Your task to perform on an android device: open app "DuckDuckGo Privacy Browser" (install if not already installed) and go to login screen Image 0: 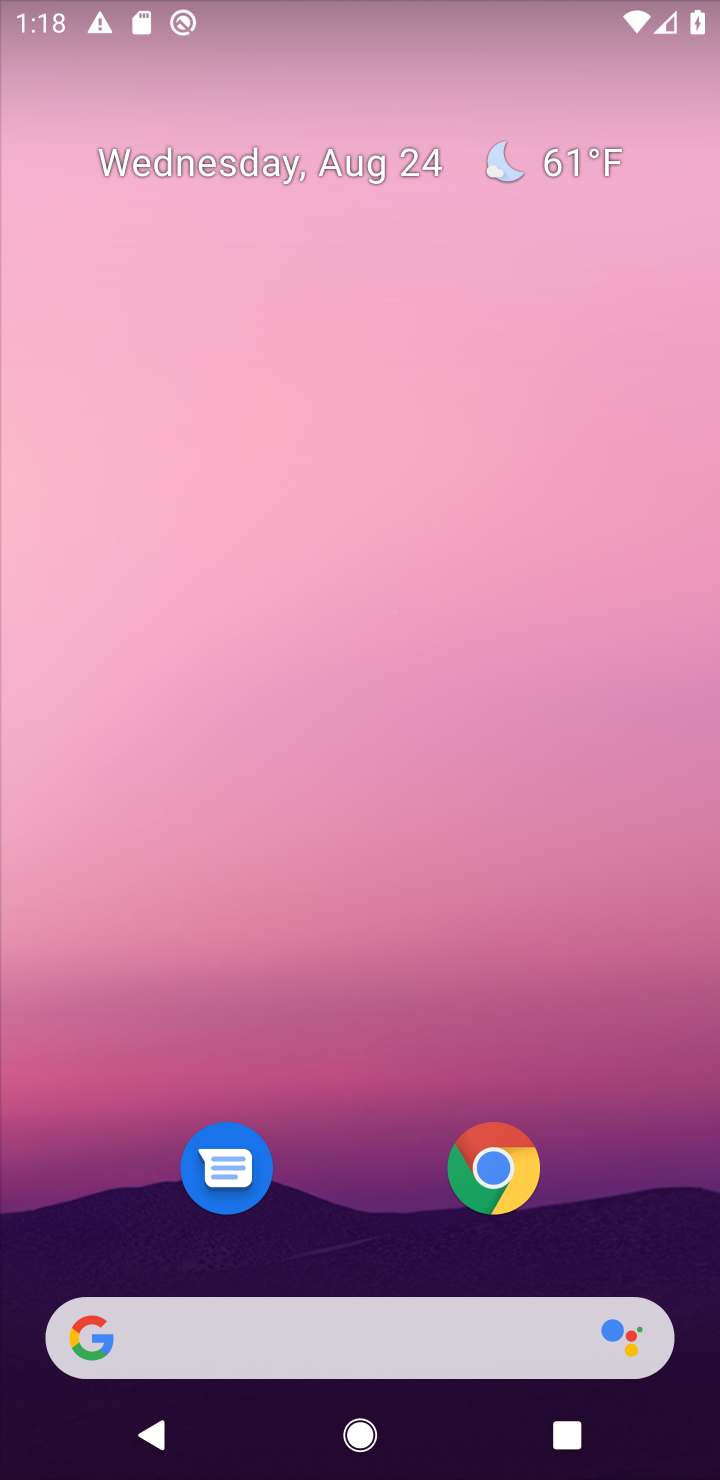
Step 0: drag from (689, 1256) to (558, 269)
Your task to perform on an android device: open app "DuckDuckGo Privacy Browser" (install if not already installed) and go to login screen Image 1: 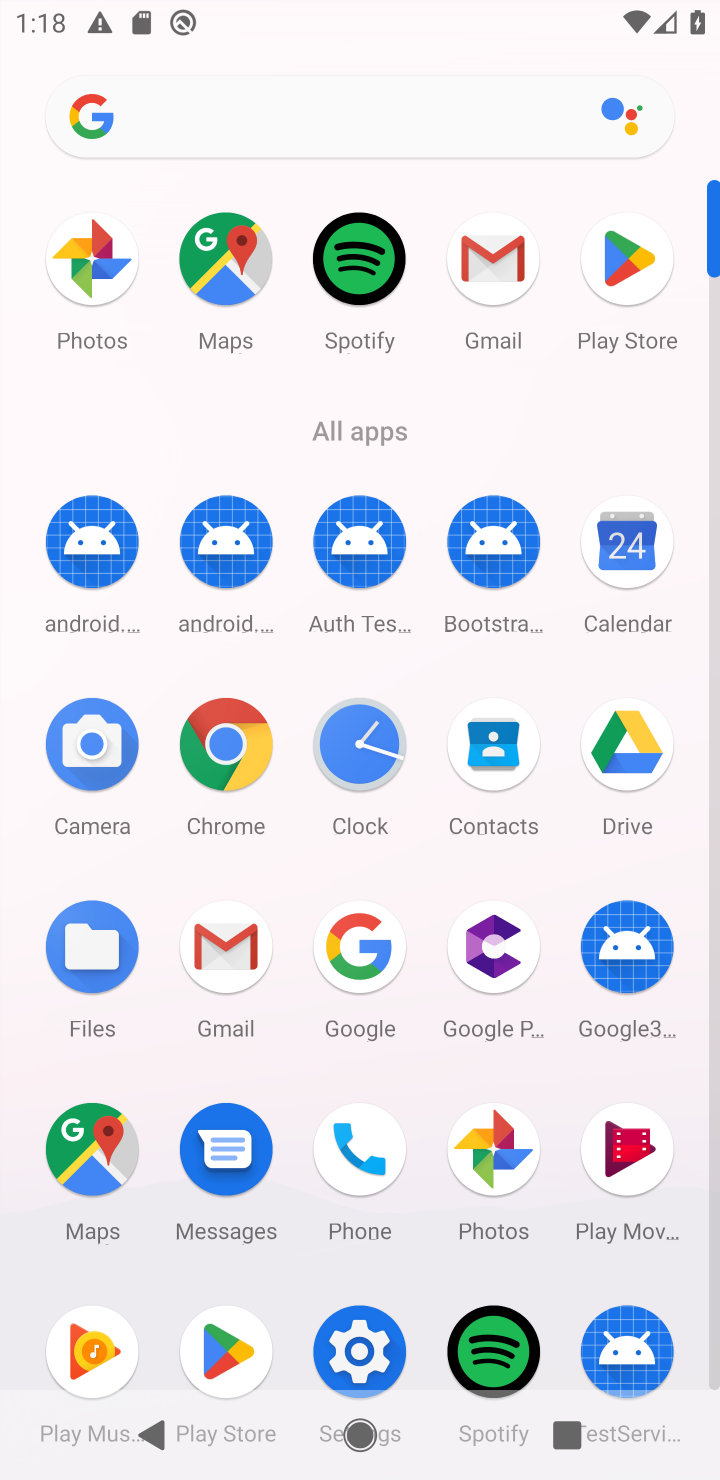
Step 1: click (711, 1324)
Your task to perform on an android device: open app "DuckDuckGo Privacy Browser" (install if not already installed) and go to login screen Image 2: 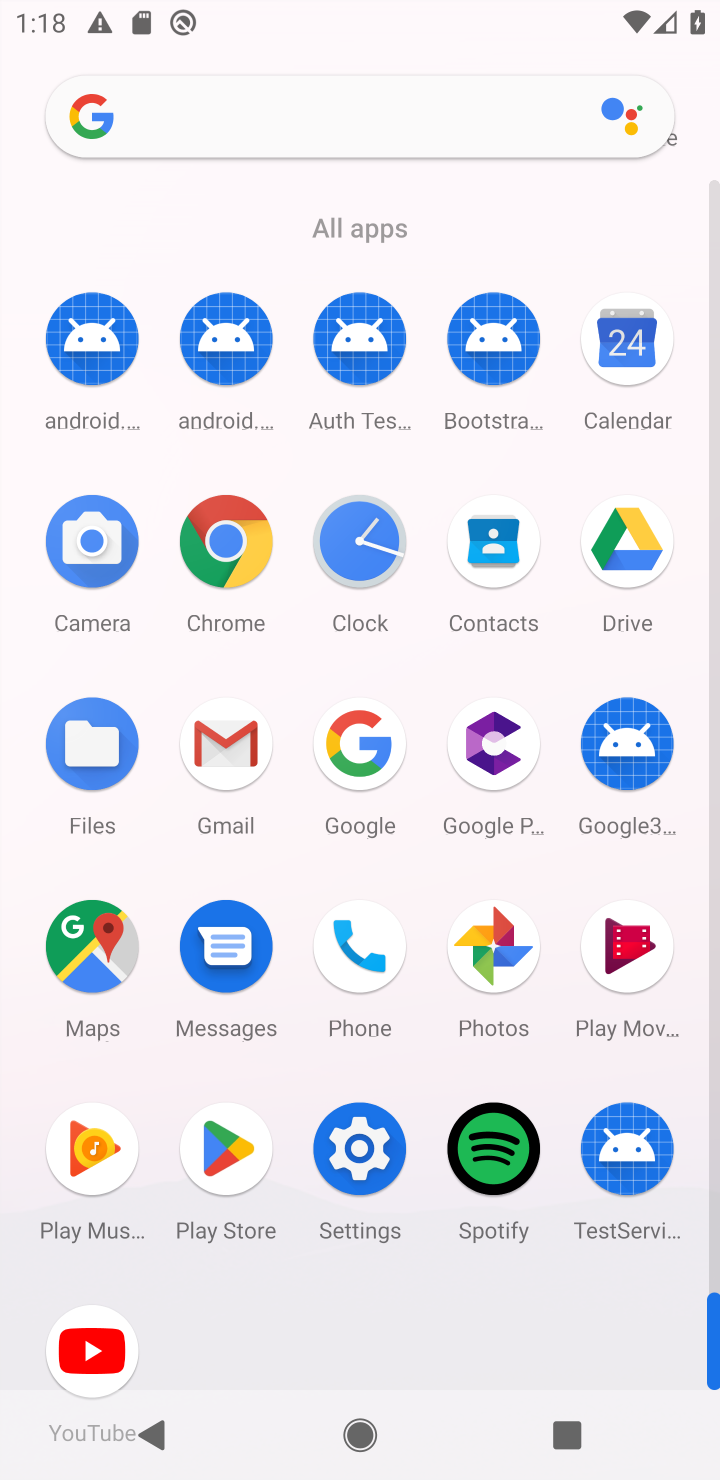
Step 2: click (236, 1141)
Your task to perform on an android device: open app "DuckDuckGo Privacy Browser" (install if not already installed) and go to login screen Image 3: 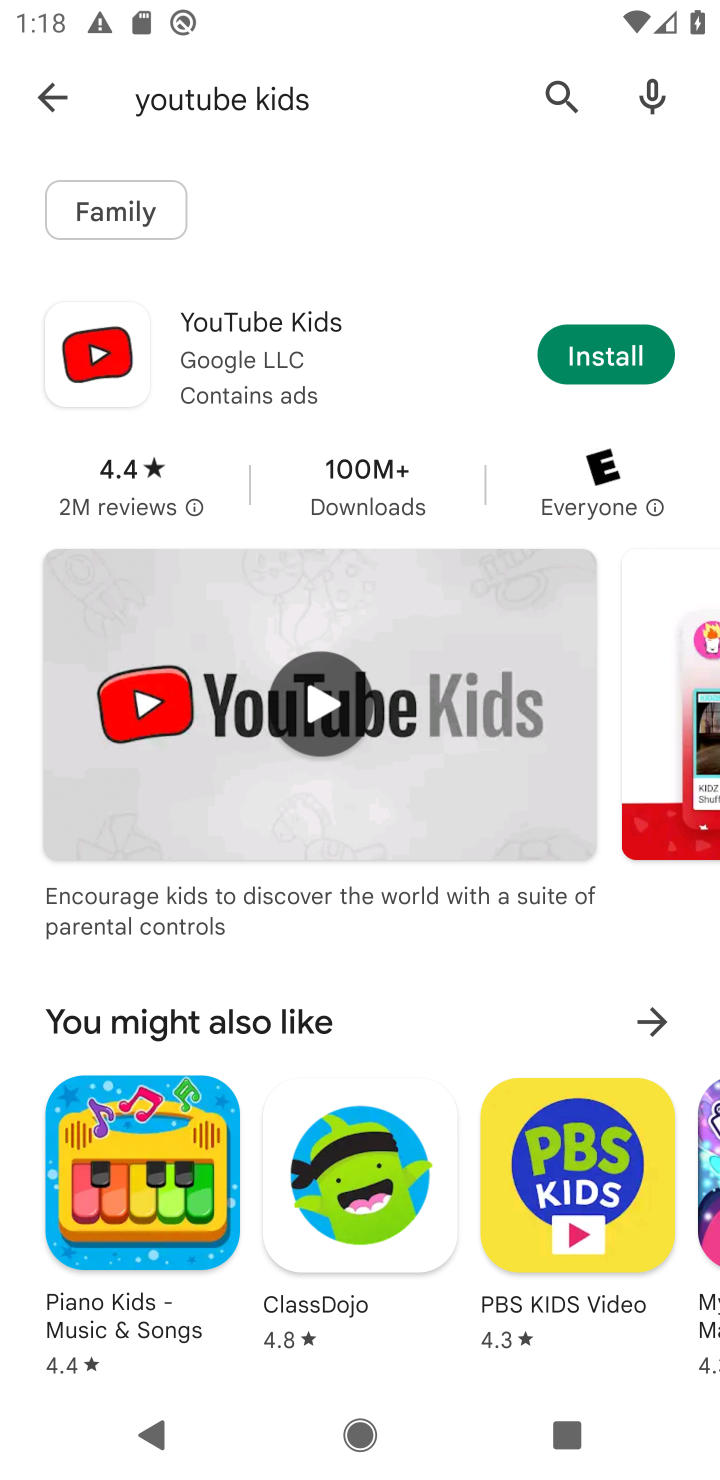
Step 3: click (553, 78)
Your task to perform on an android device: open app "DuckDuckGo Privacy Browser" (install if not already installed) and go to login screen Image 4: 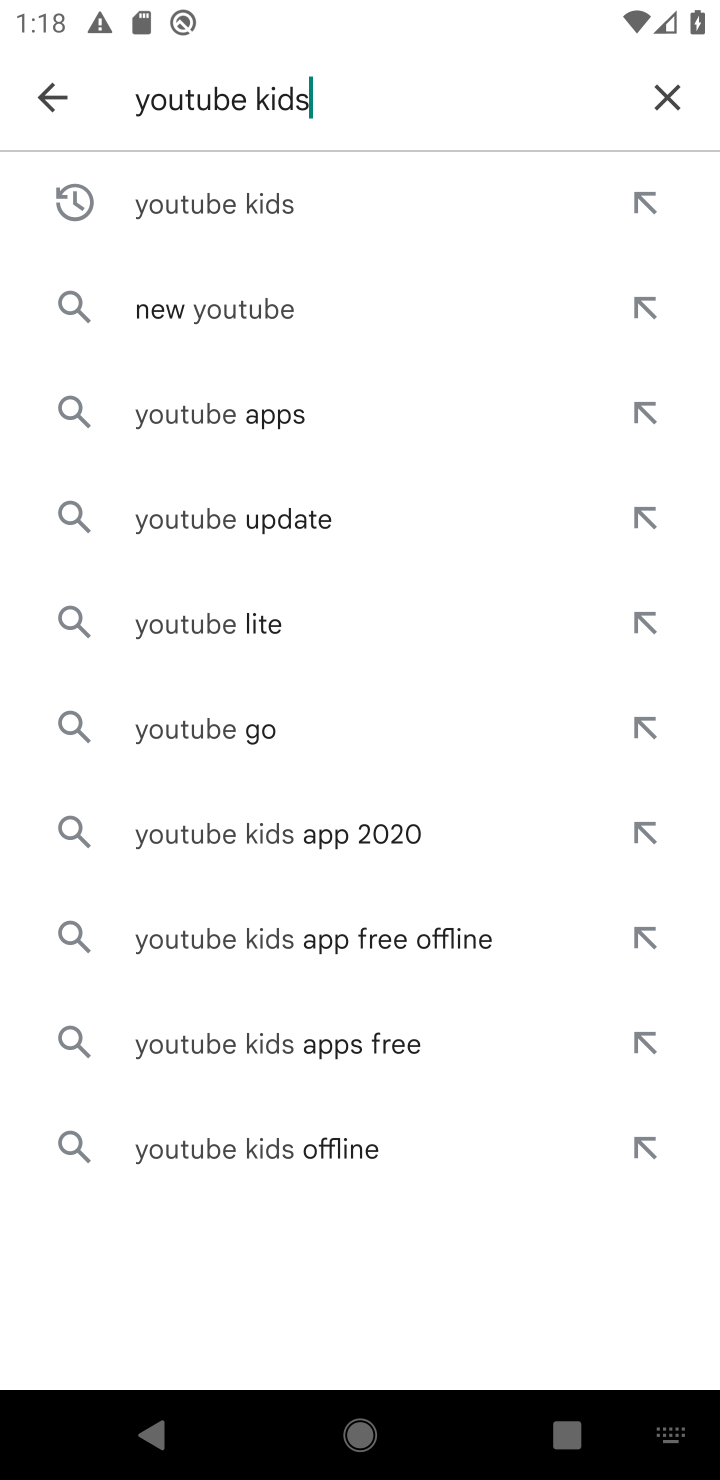
Step 4: click (670, 91)
Your task to perform on an android device: open app "DuckDuckGo Privacy Browser" (install if not already installed) and go to login screen Image 5: 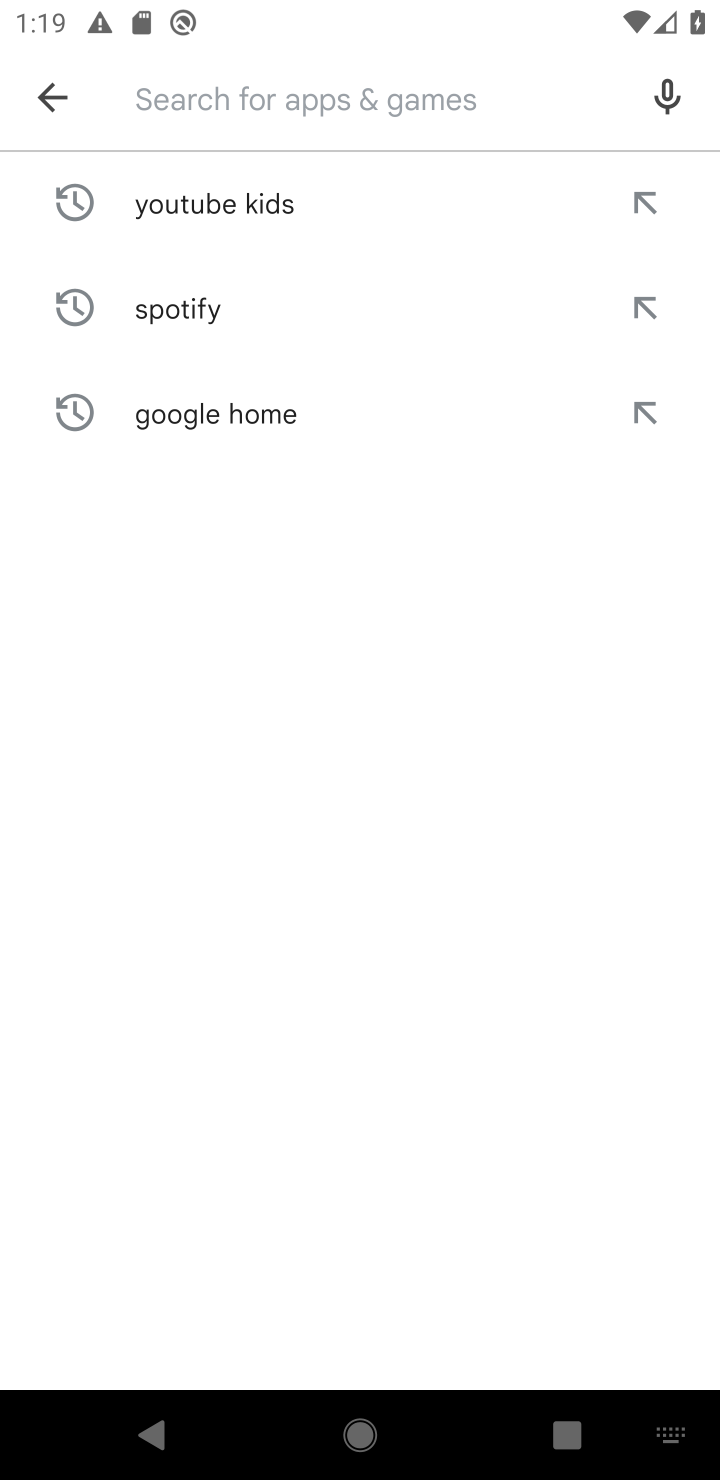
Step 5: type "DuckDuckGo Privacy Browser"
Your task to perform on an android device: open app "DuckDuckGo Privacy Browser" (install if not already installed) and go to login screen Image 6: 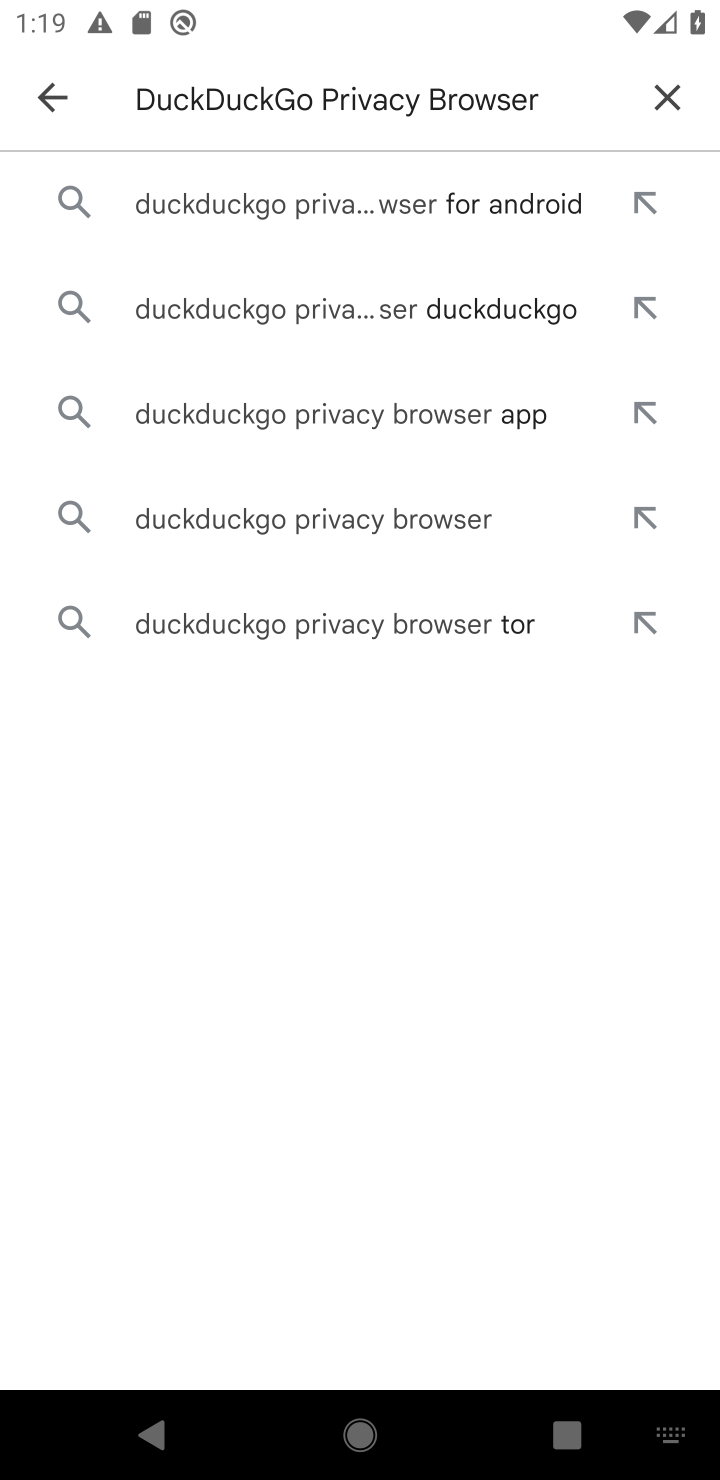
Step 6: click (295, 175)
Your task to perform on an android device: open app "DuckDuckGo Privacy Browser" (install if not already installed) and go to login screen Image 7: 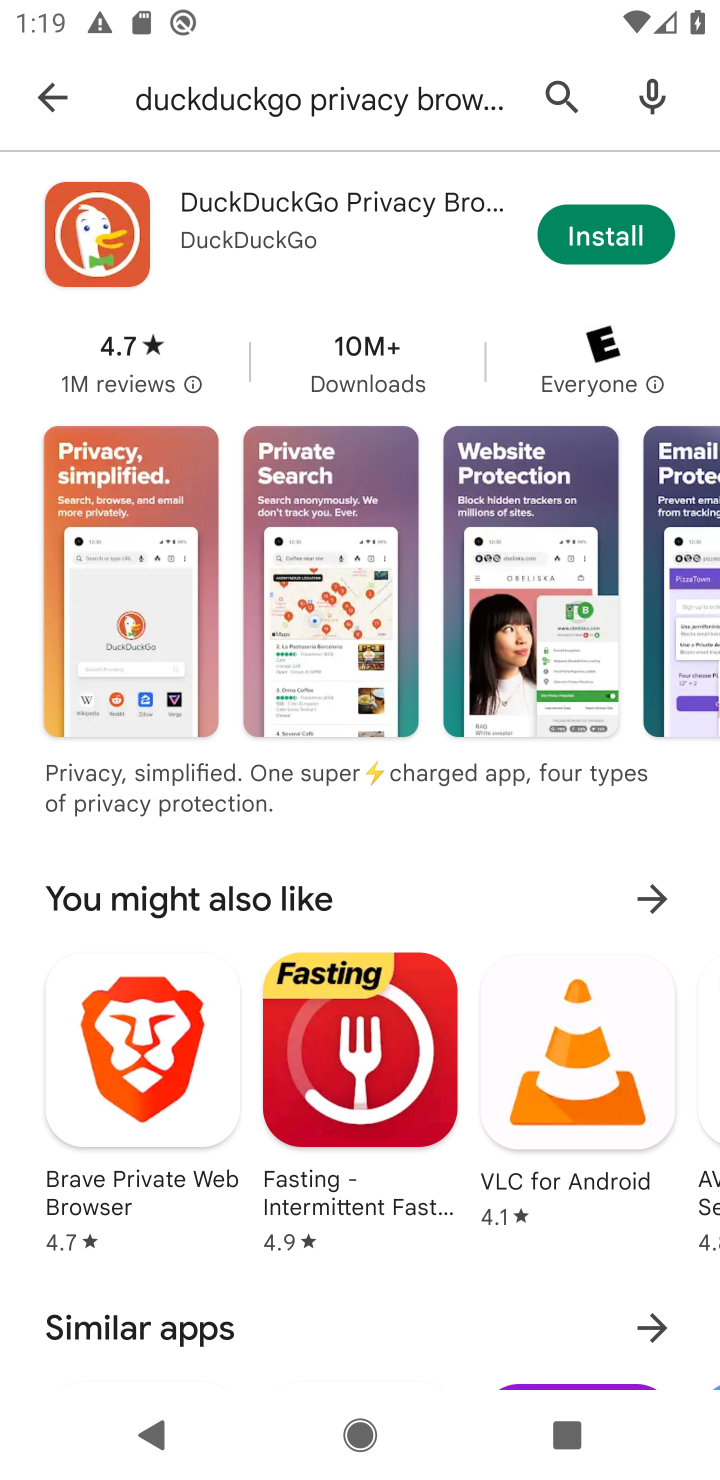
Step 7: click (241, 211)
Your task to perform on an android device: open app "DuckDuckGo Privacy Browser" (install if not already installed) and go to login screen Image 8: 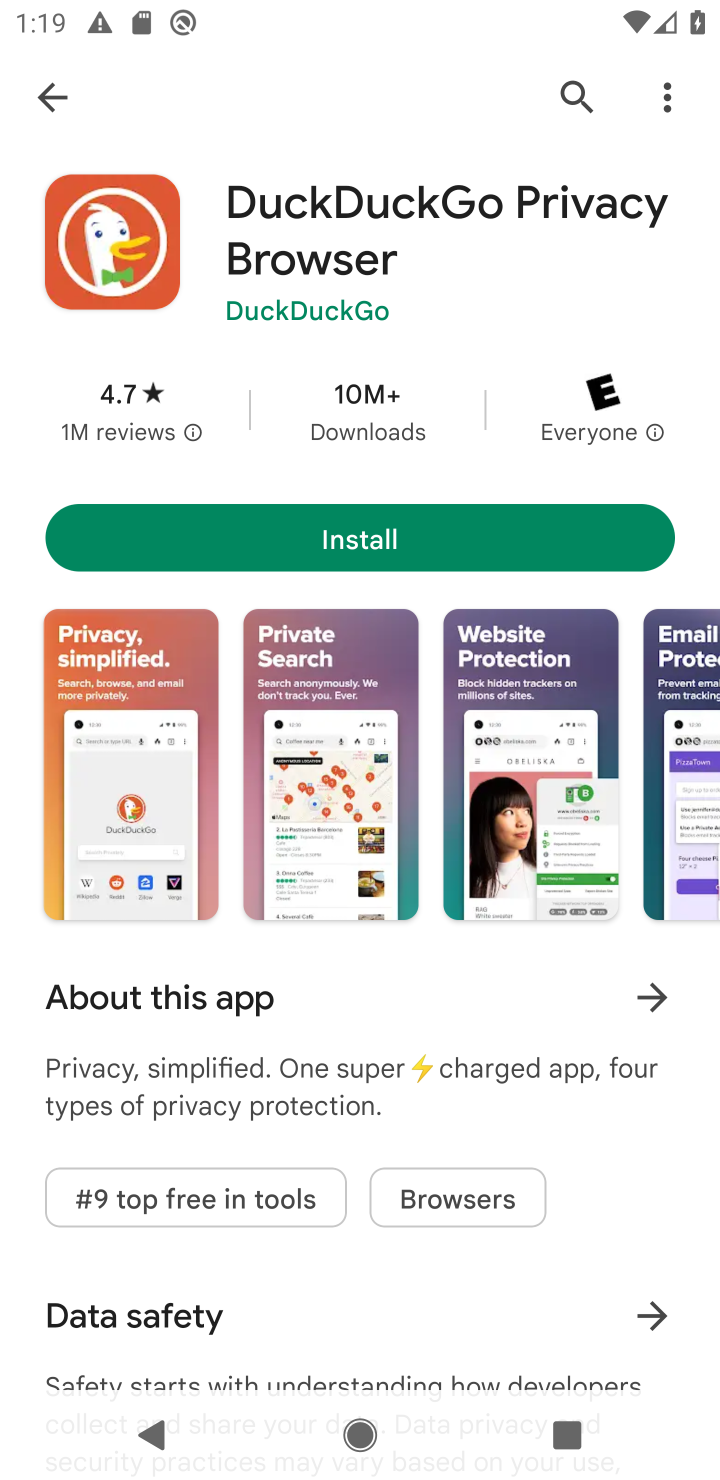
Step 8: click (366, 533)
Your task to perform on an android device: open app "DuckDuckGo Privacy Browser" (install if not already installed) and go to login screen Image 9: 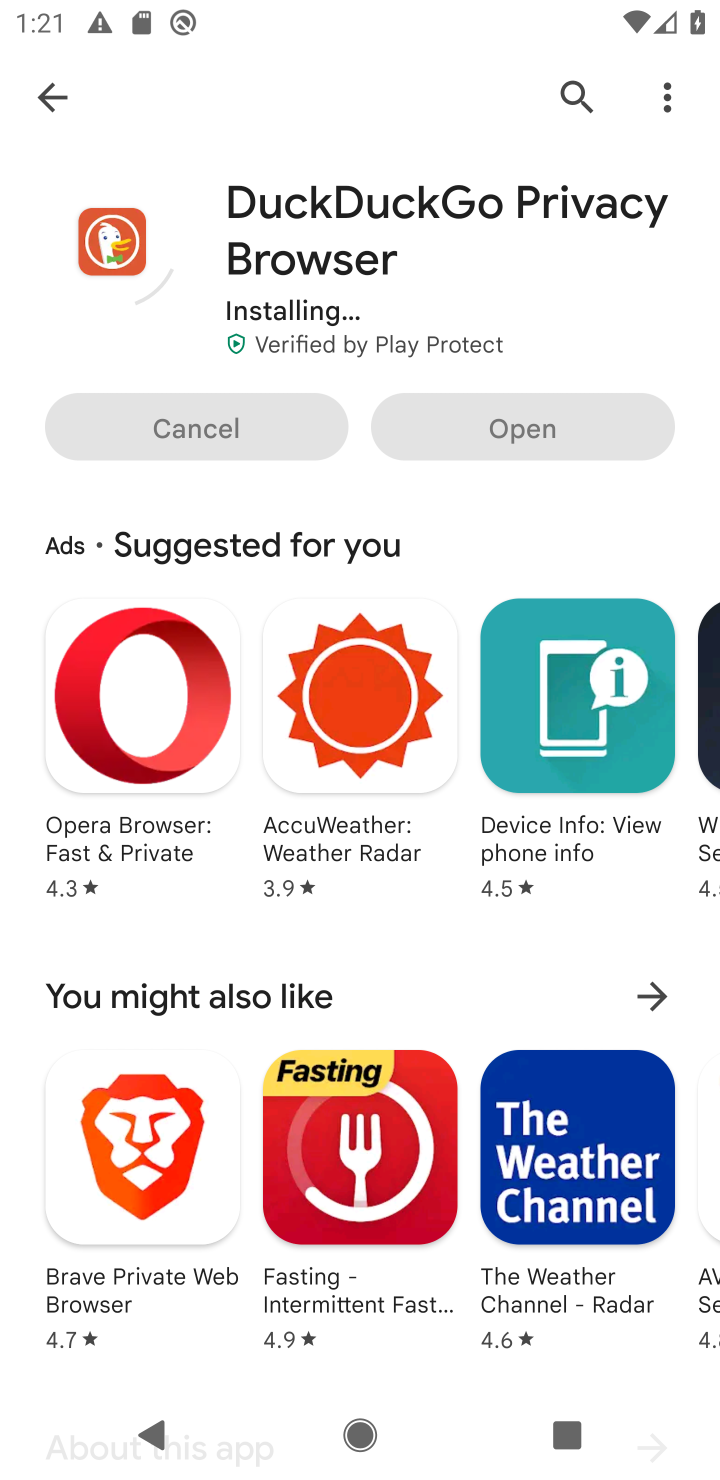
Step 9: drag from (410, 262) to (387, 461)
Your task to perform on an android device: open app "DuckDuckGo Privacy Browser" (install if not already installed) and go to login screen Image 10: 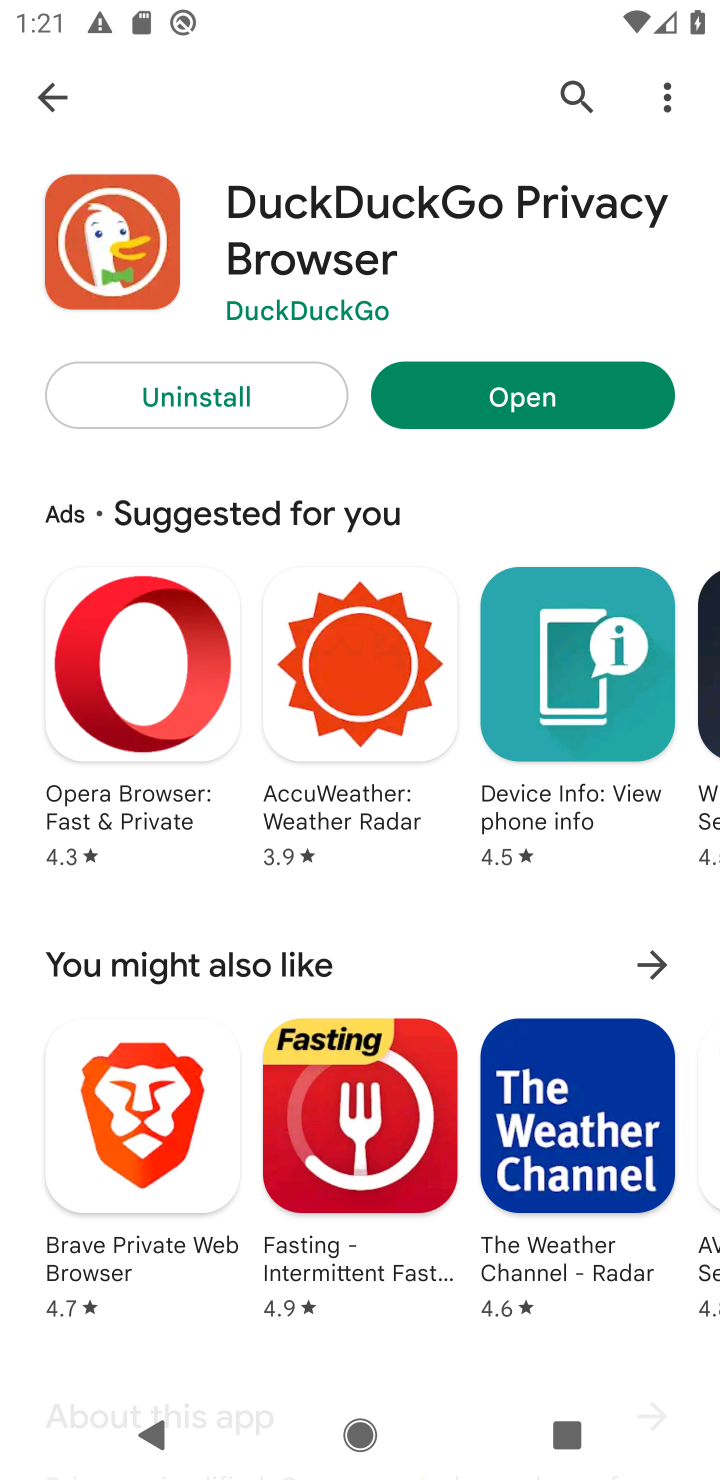
Step 10: click (515, 391)
Your task to perform on an android device: open app "DuckDuckGo Privacy Browser" (install if not already installed) and go to login screen Image 11: 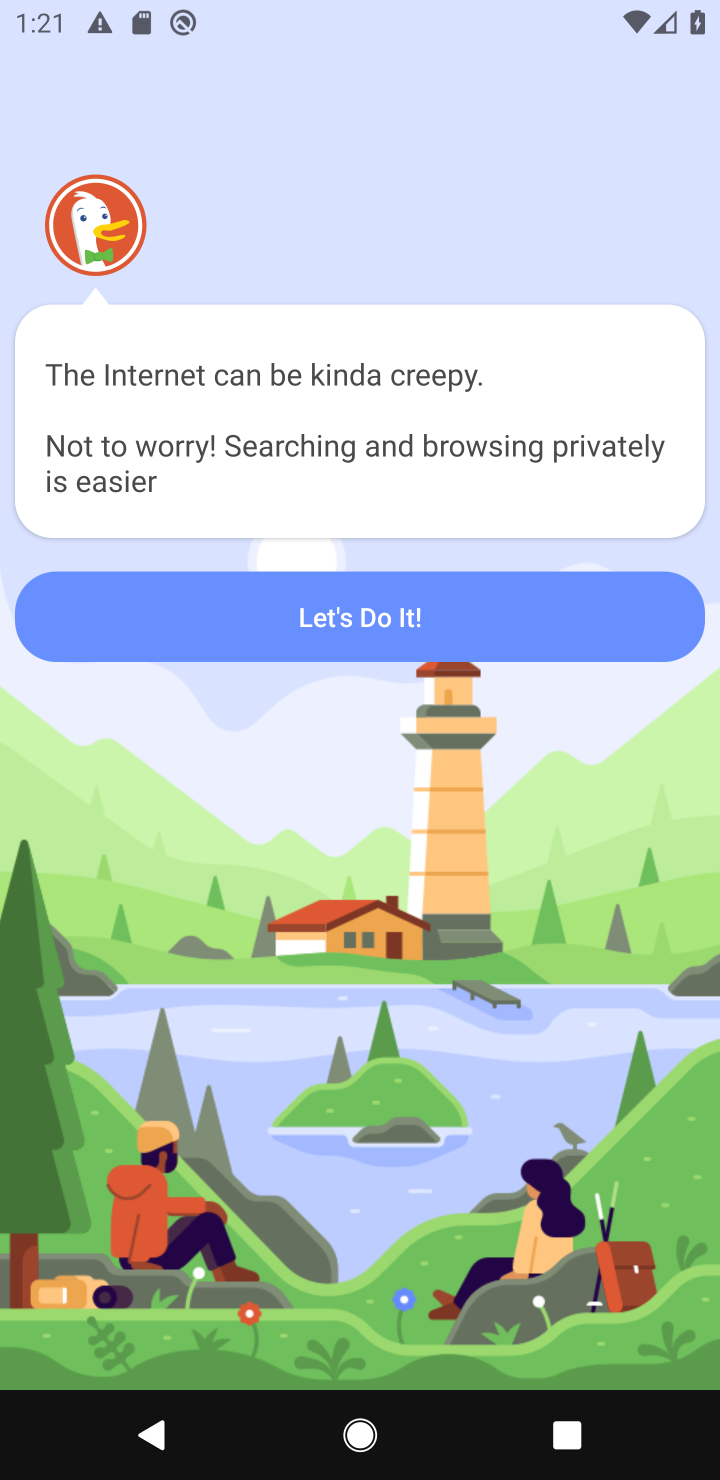
Step 11: click (344, 594)
Your task to perform on an android device: open app "DuckDuckGo Privacy Browser" (install if not already installed) and go to login screen Image 12: 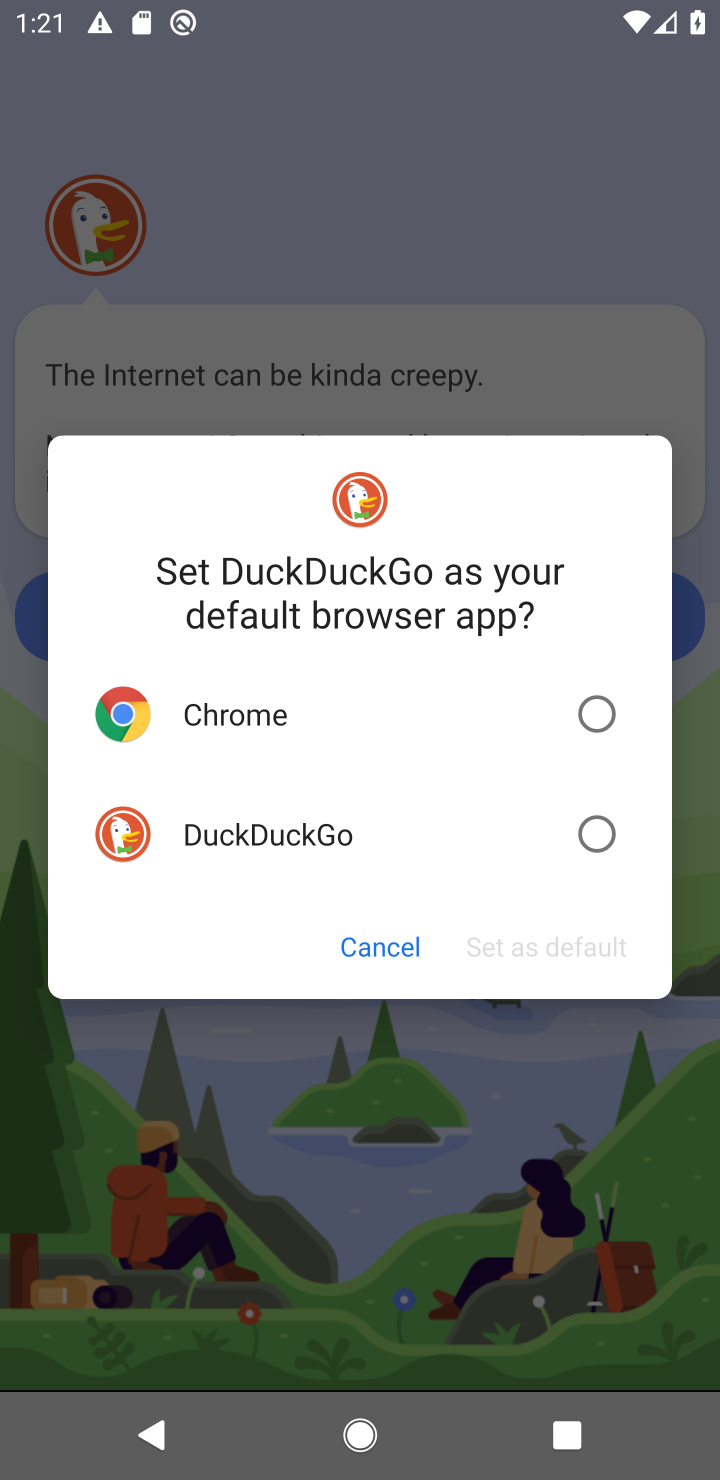
Step 12: click (606, 835)
Your task to perform on an android device: open app "DuckDuckGo Privacy Browser" (install if not already installed) and go to login screen Image 13: 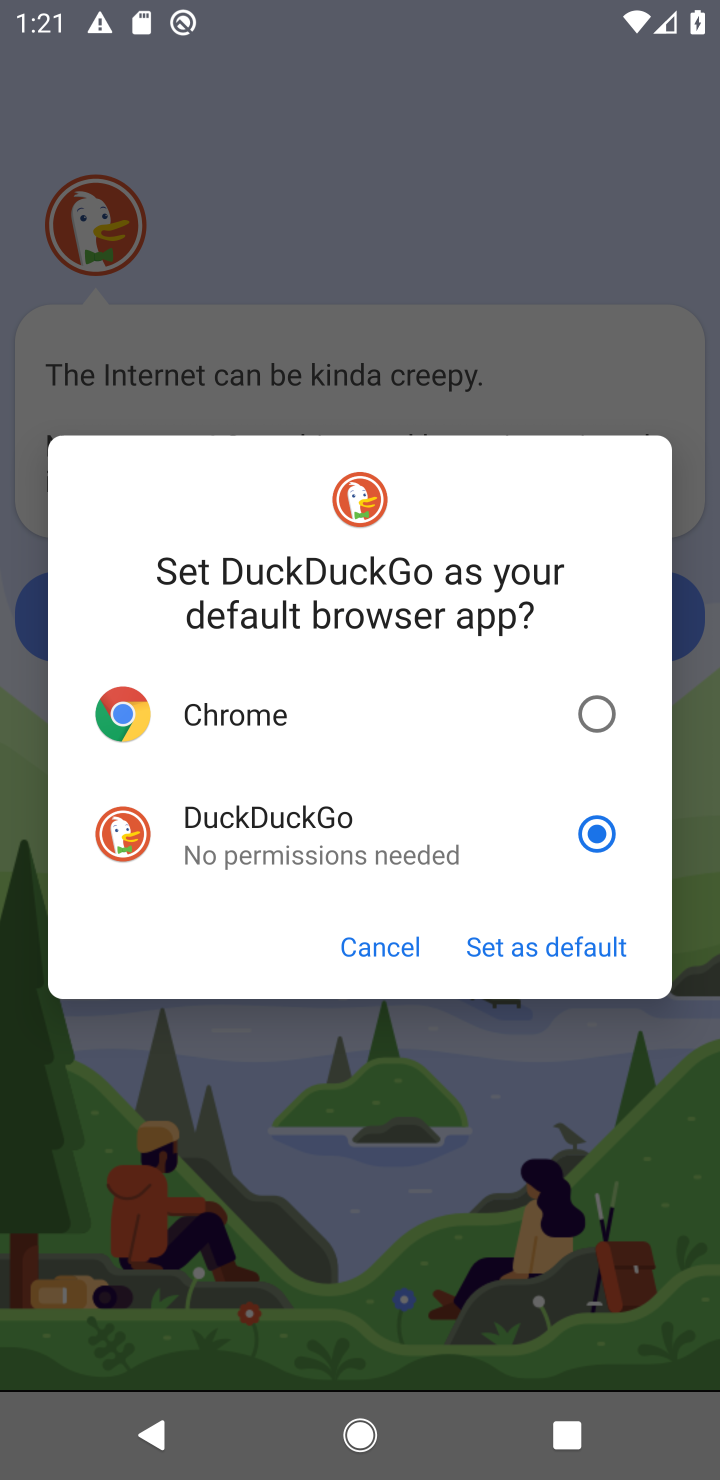
Step 13: click (568, 955)
Your task to perform on an android device: open app "DuckDuckGo Privacy Browser" (install if not already installed) and go to login screen Image 14: 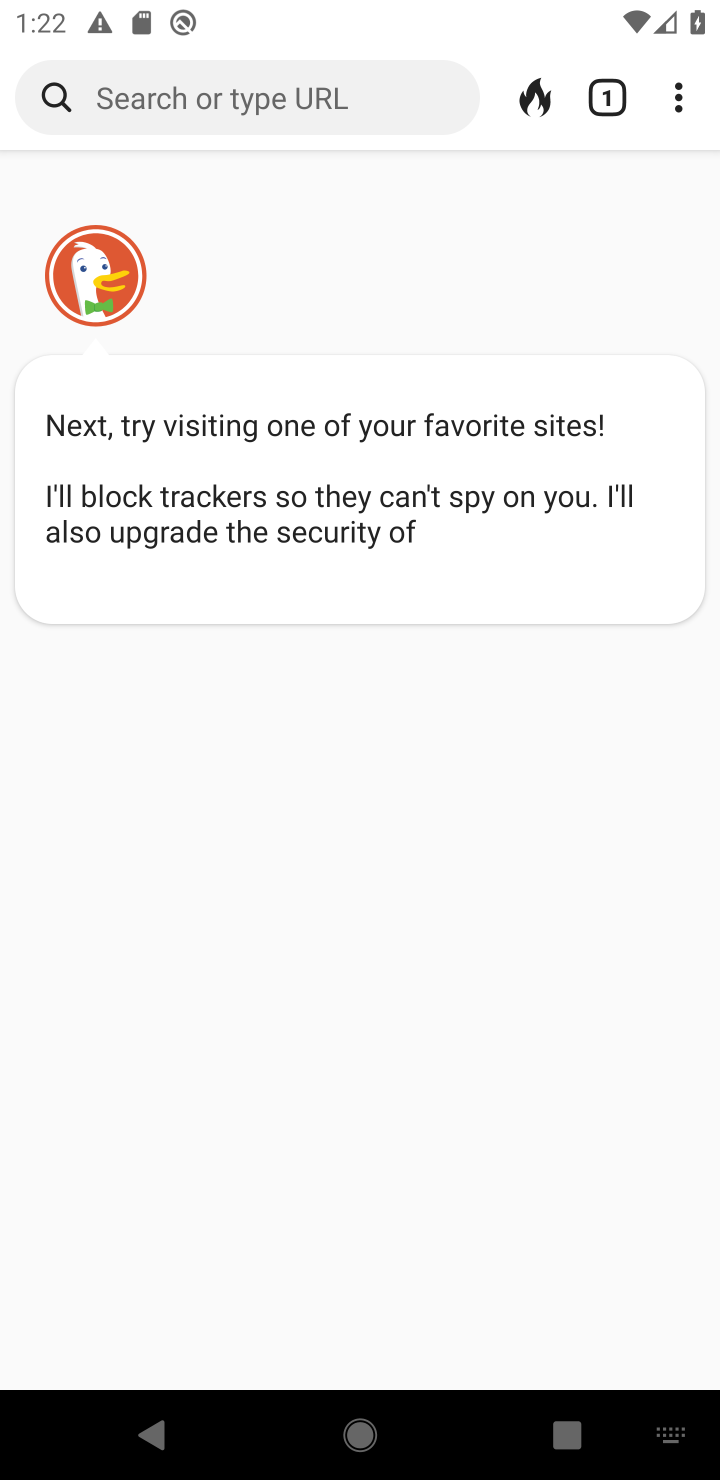
Step 14: task complete